Your task to perform on an android device: clear all cookies in the chrome app Image 0: 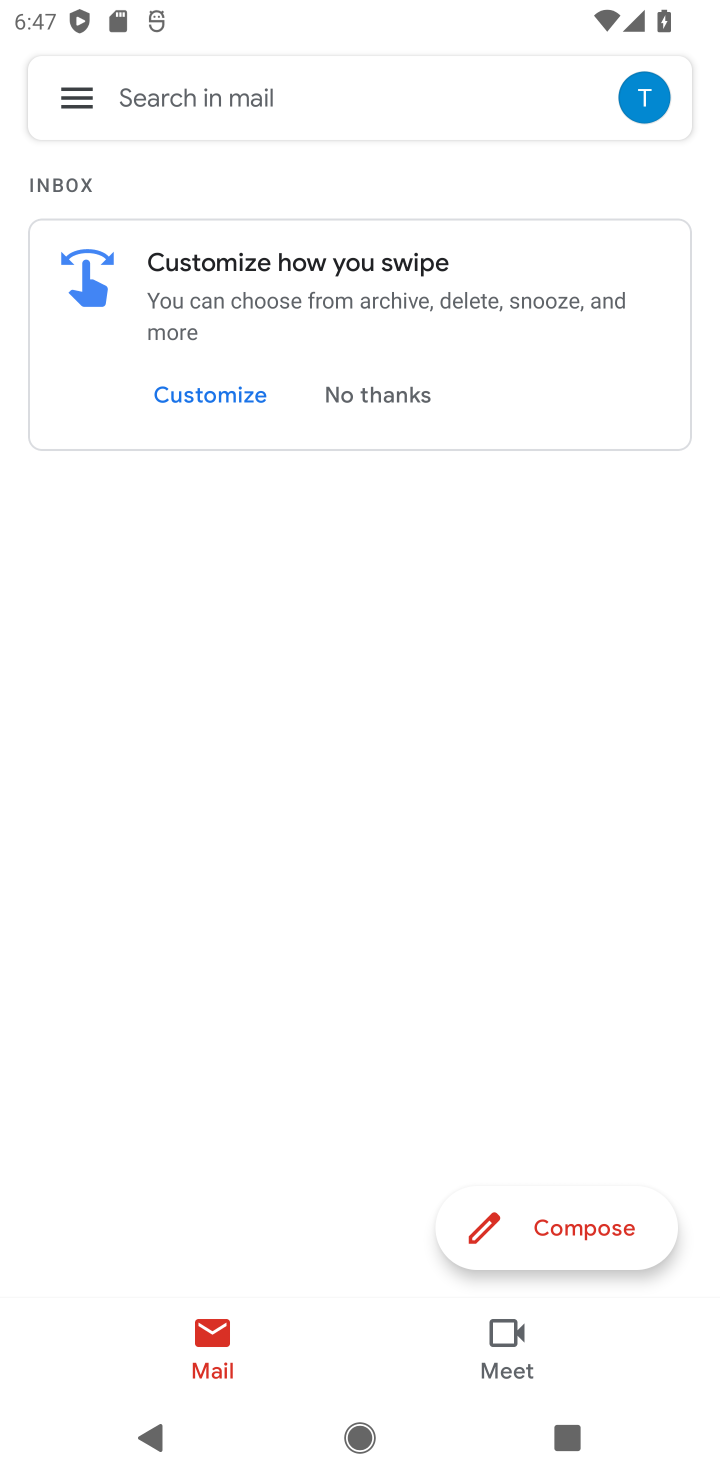
Step 0: press home button
Your task to perform on an android device: clear all cookies in the chrome app Image 1: 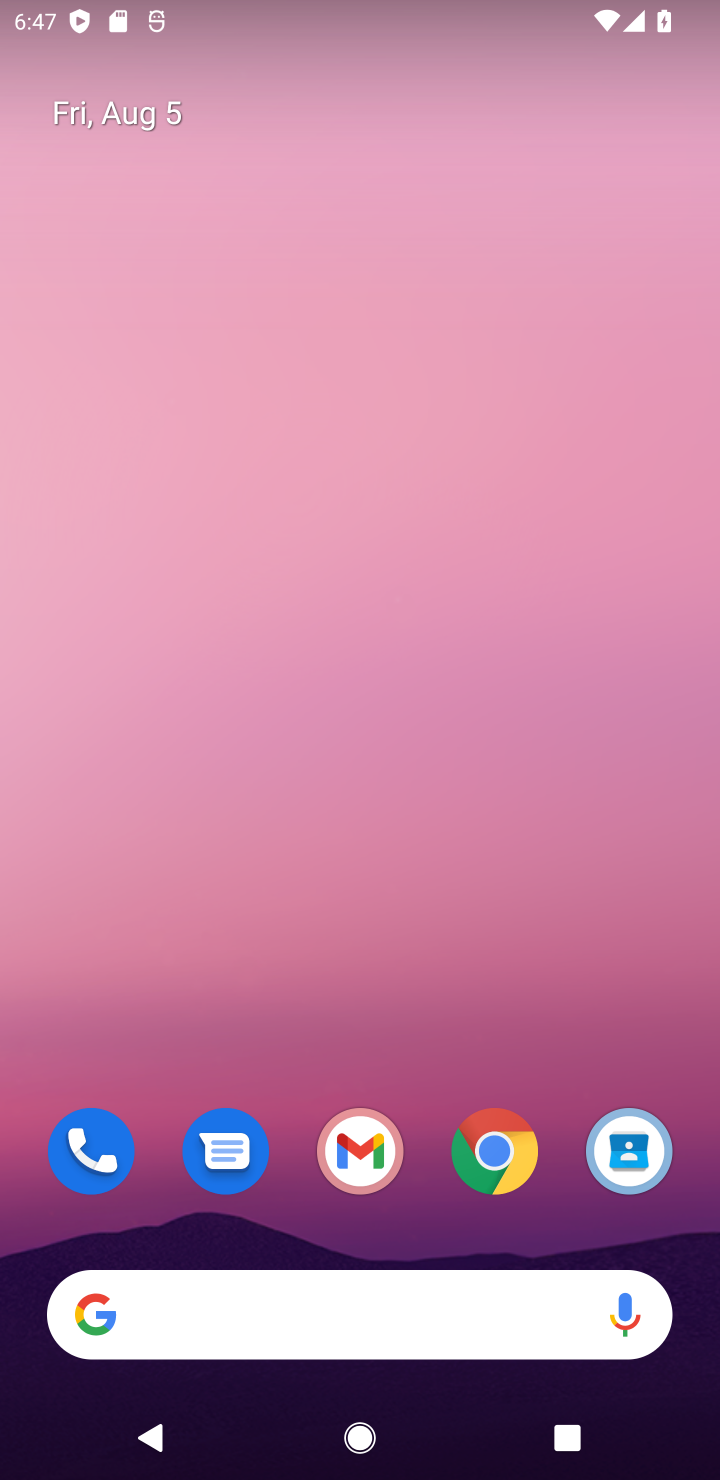
Step 1: click (528, 1173)
Your task to perform on an android device: clear all cookies in the chrome app Image 2: 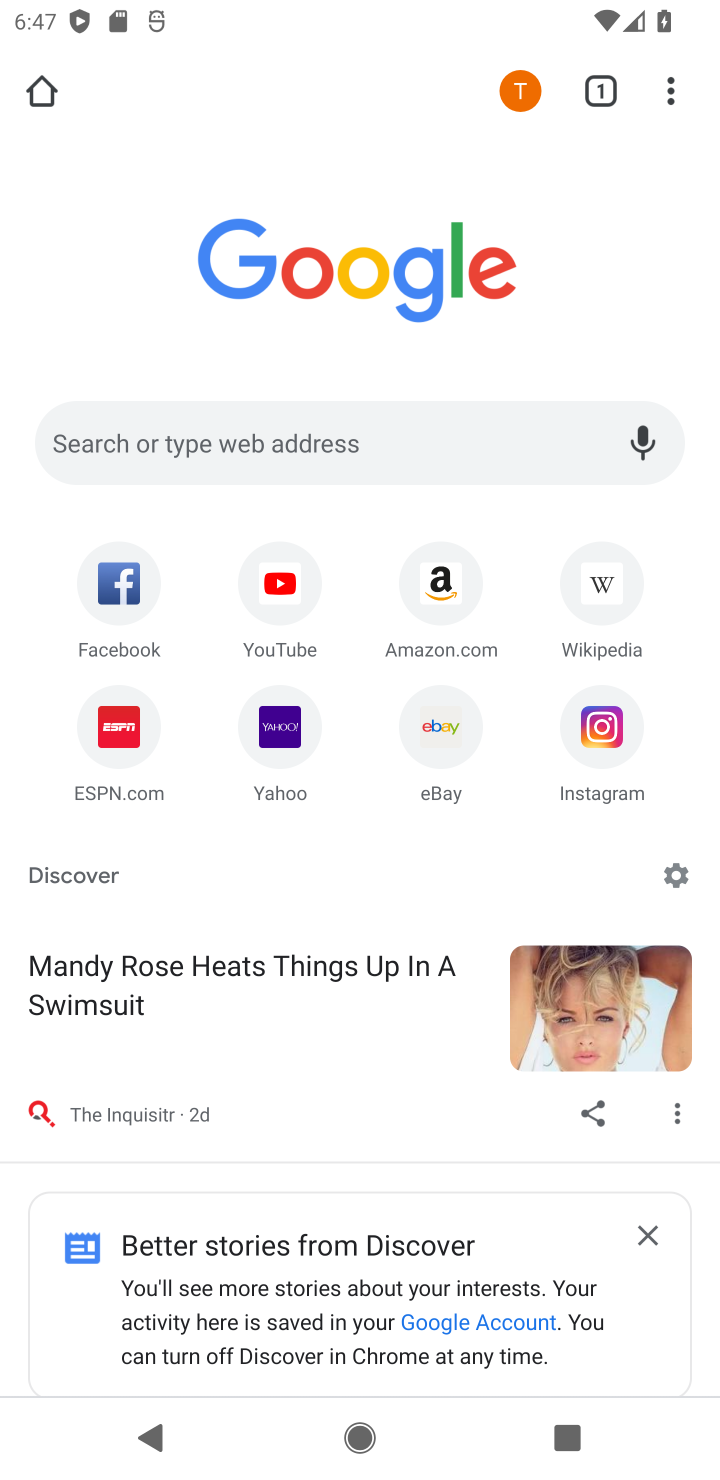
Step 2: click (672, 96)
Your task to perform on an android device: clear all cookies in the chrome app Image 3: 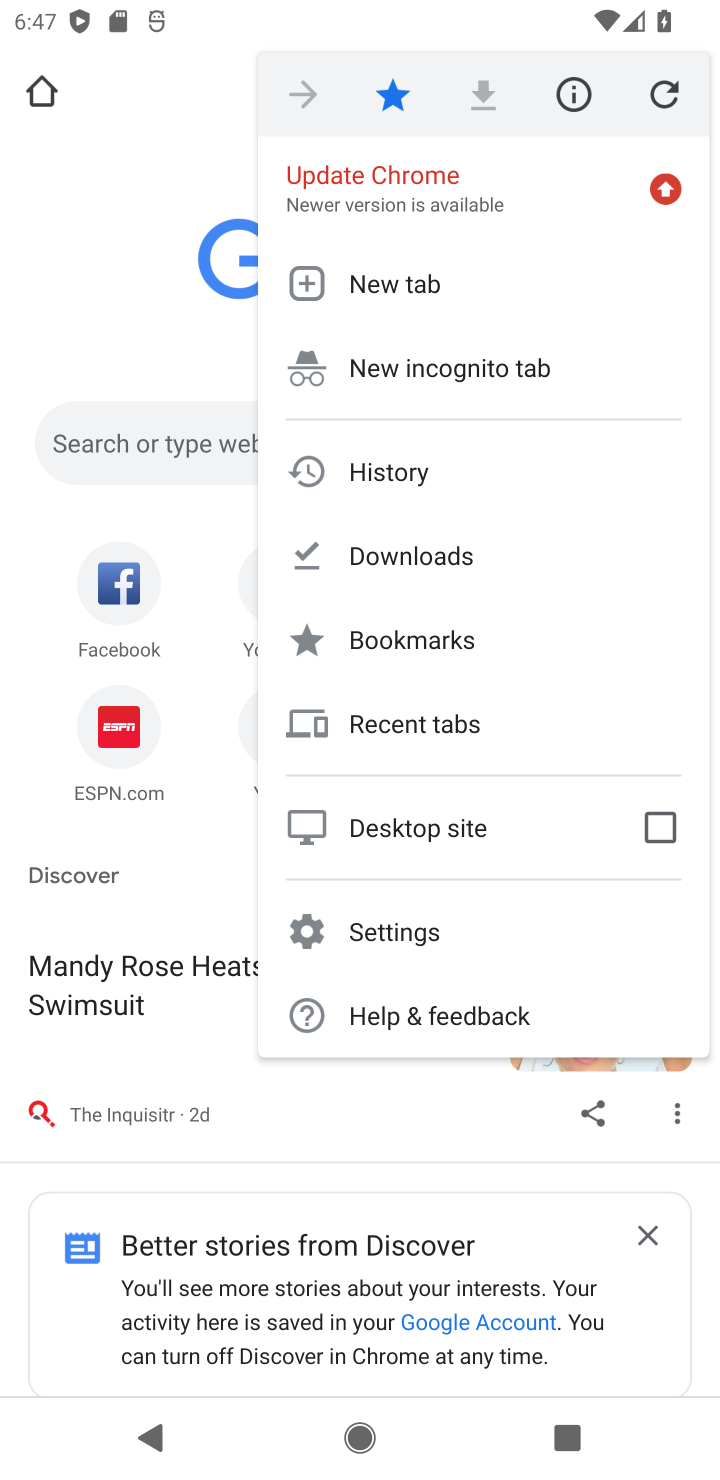
Step 3: click (420, 475)
Your task to perform on an android device: clear all cookies in the chrome app Image 4: 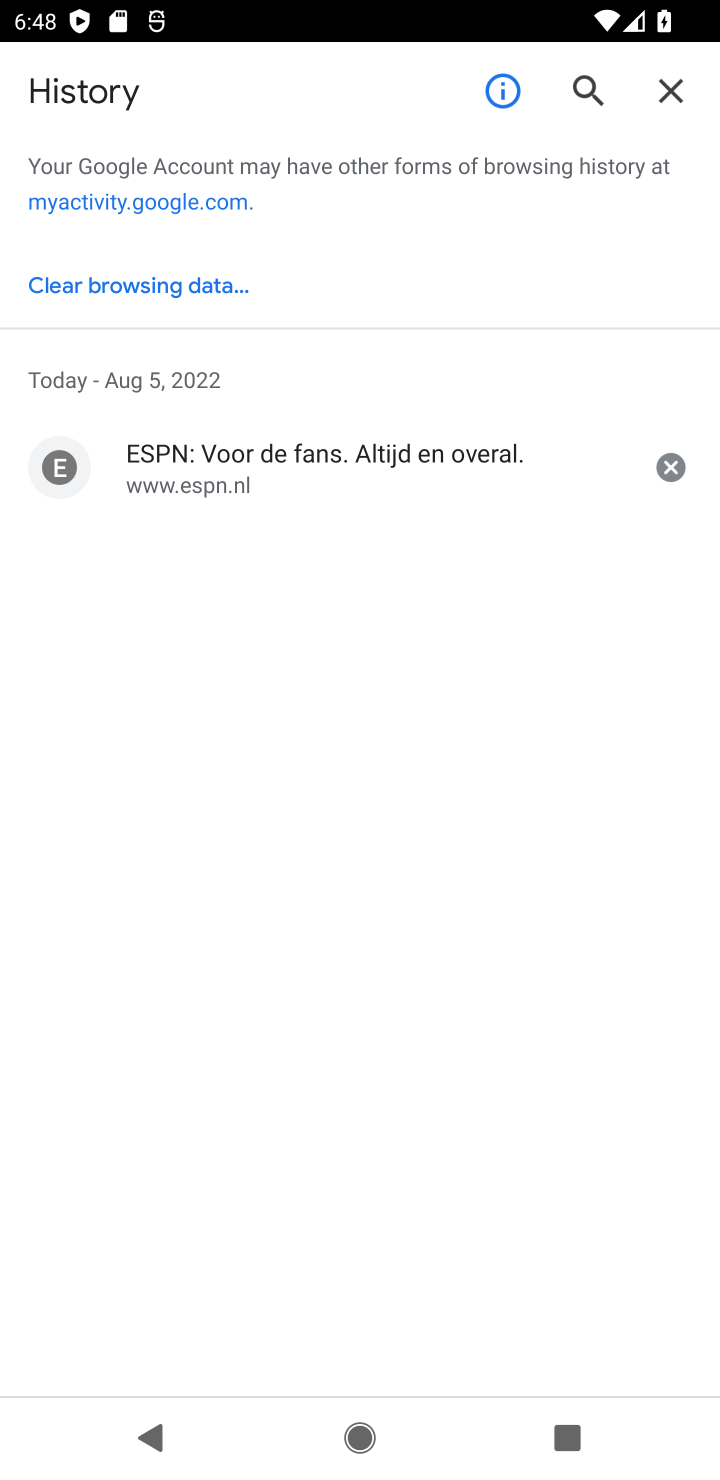
Step 4: click (137, 279)
Your task to perform on an android device: clear all cookies in the chrome app Image 5: 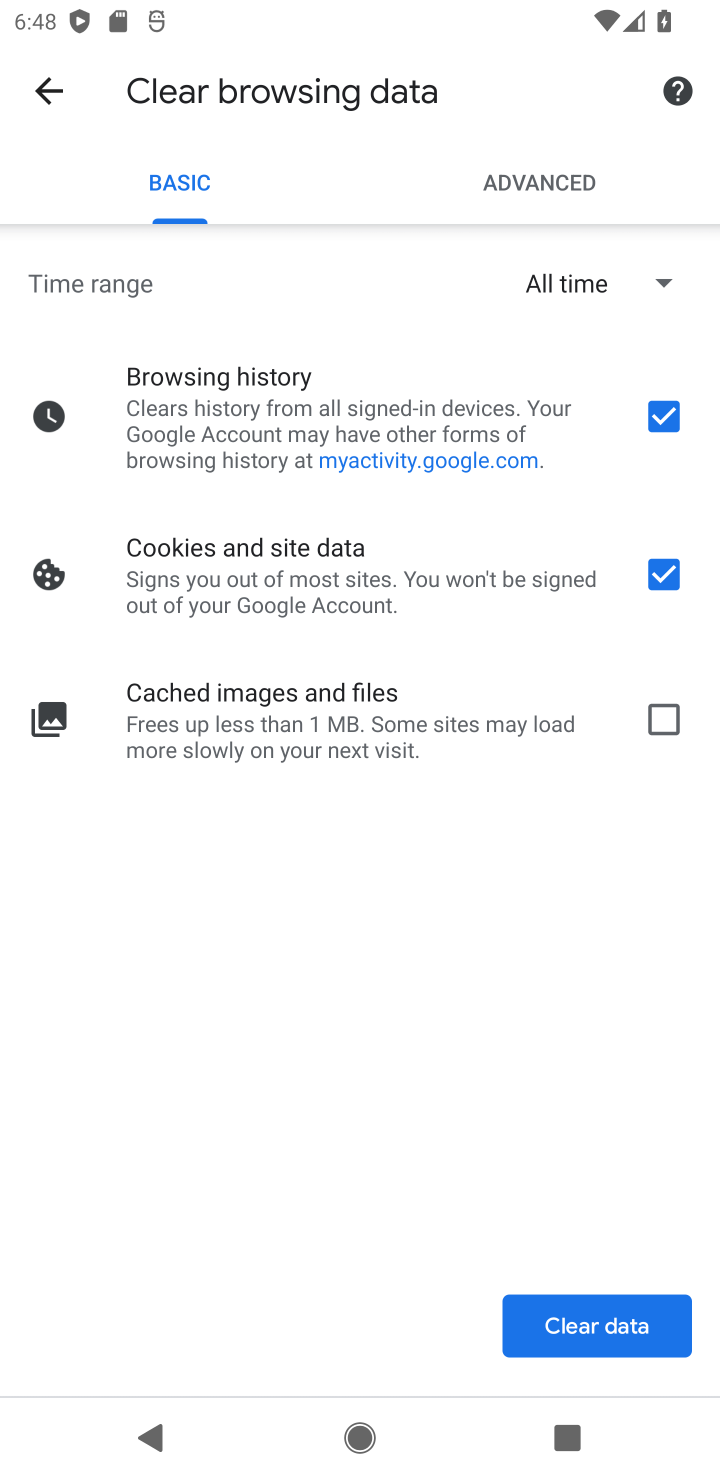
Step 5: click (658, 419)
Your task to perform on an android device: clear all cookies in the chrome app Image 6: 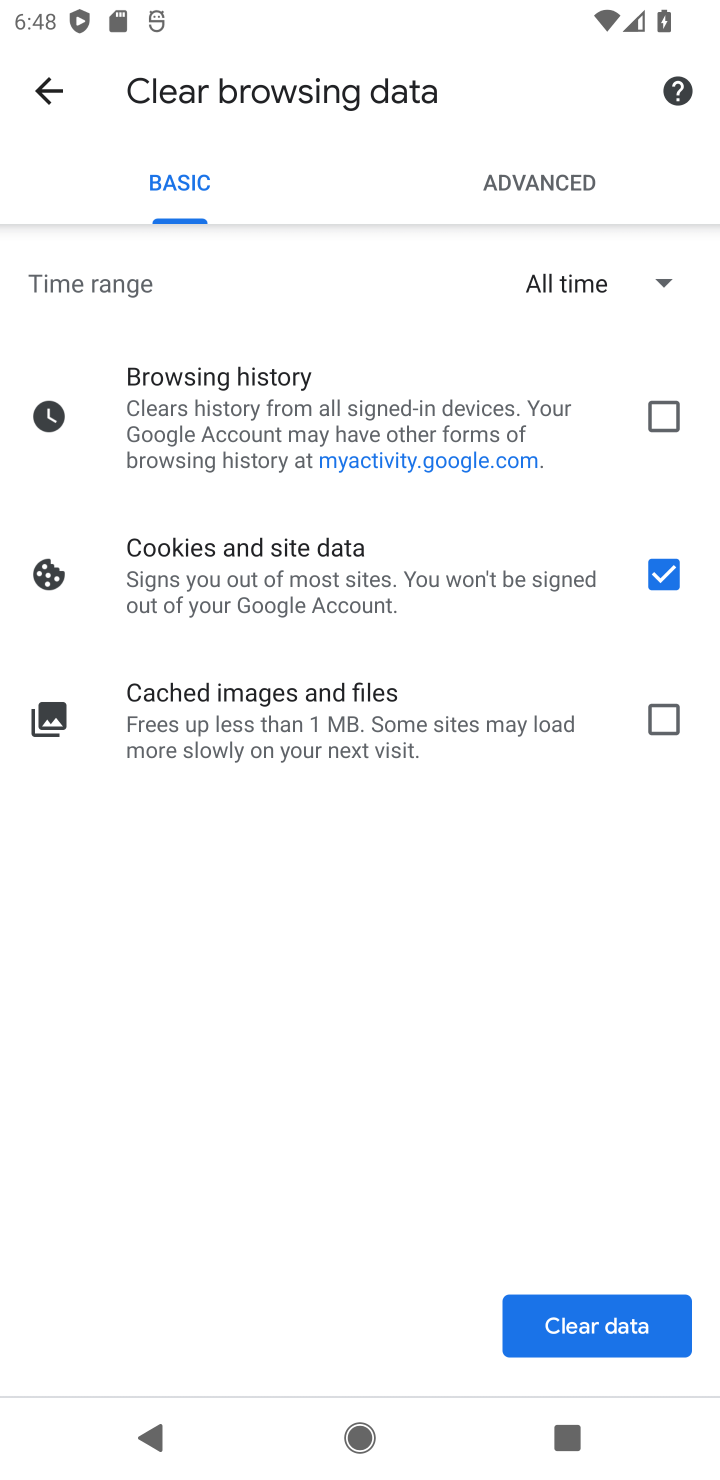
Step 6: click (607, 1338)
Your task to perform on an android device: clear all cookies in the chrome app Image 7: 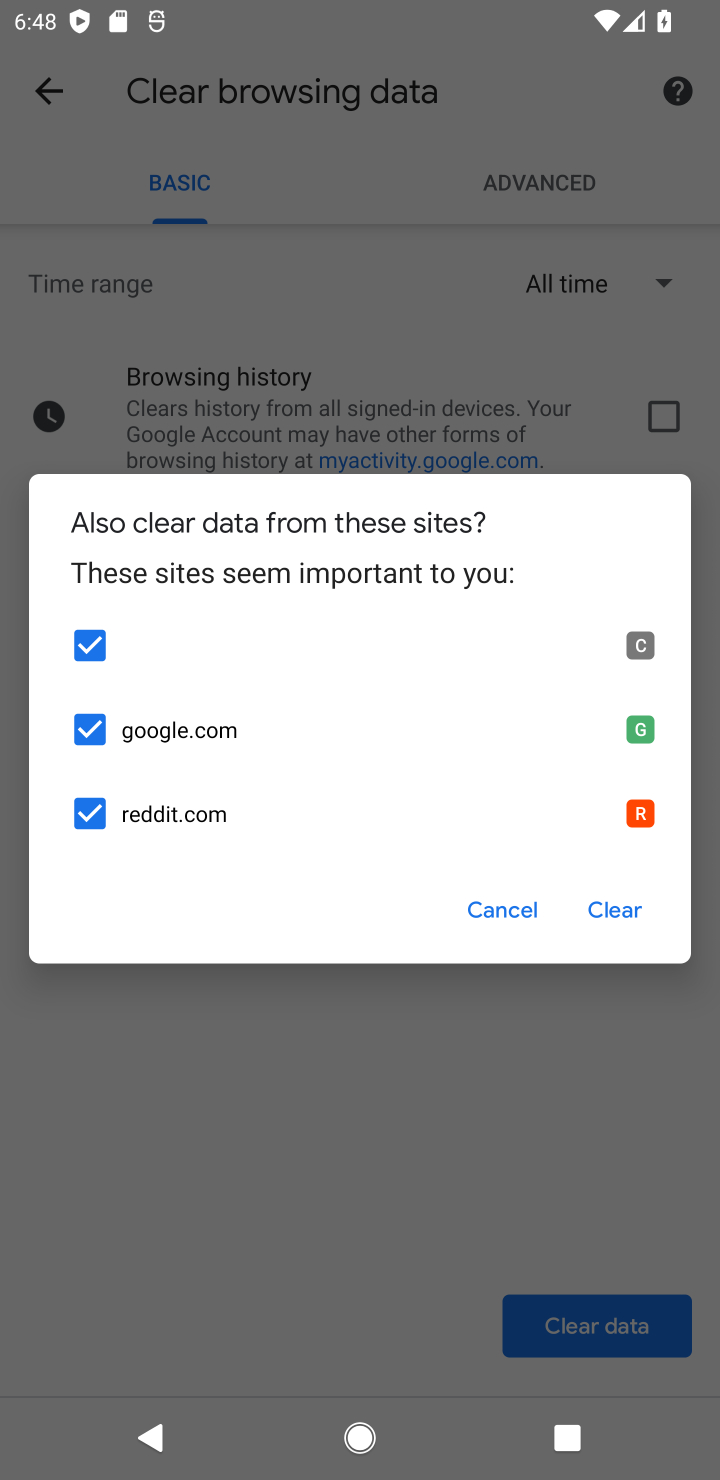
Step 7: click (621, 918)
Your task to perform on an android device: clear all cookies in the chrome app Image 8: 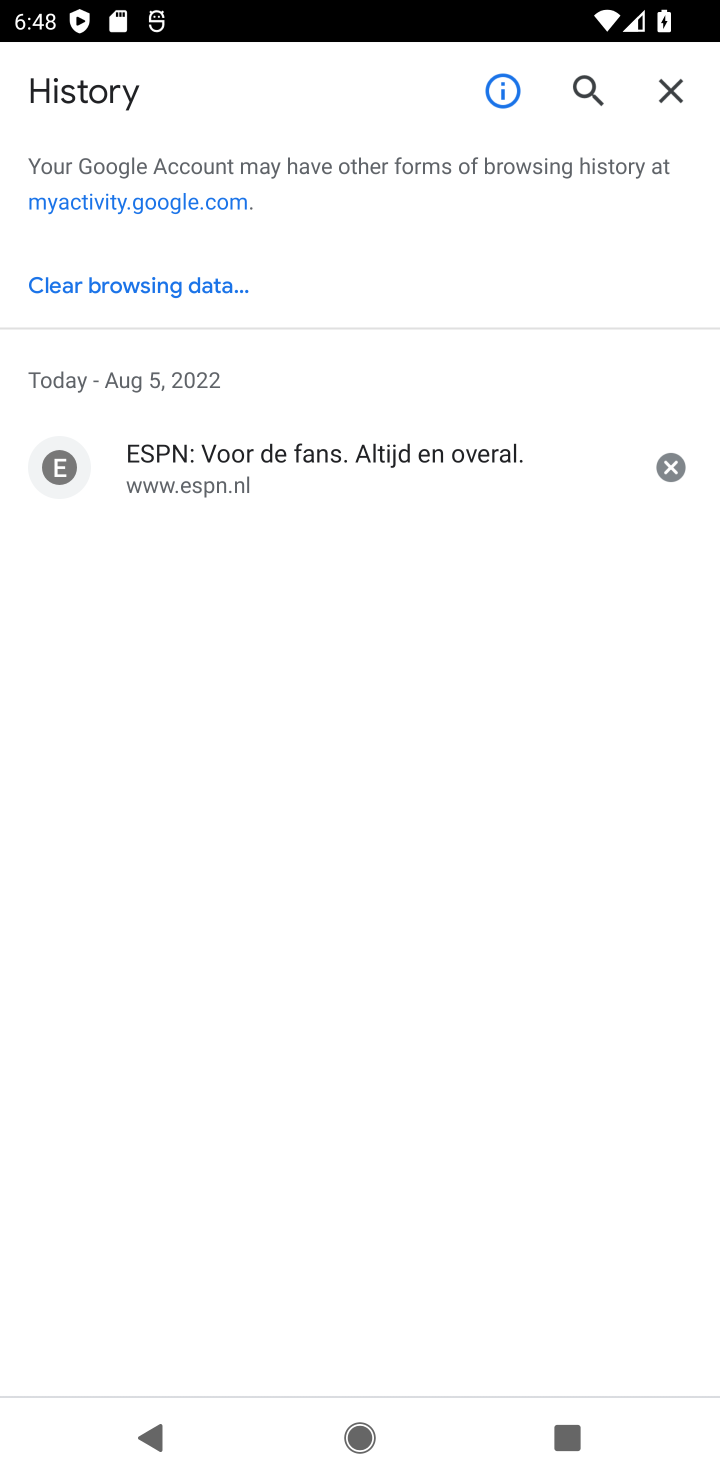
Step 8: task complete